Your task to perform on an android device: see sites visited before in the chrome app Image 0: 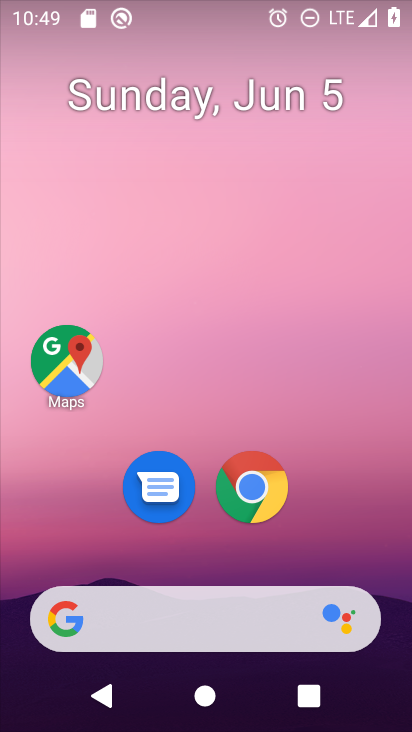
Step 0: drag from (288, 534) to (259, 320)
Your task to perform on an android device: see sites visited before in the chrome app Image 1: 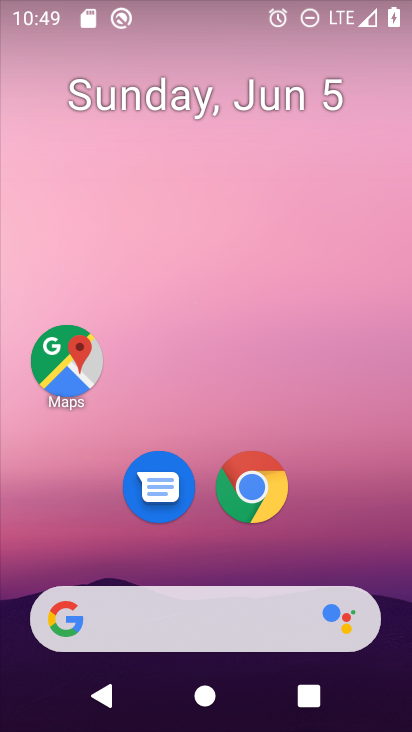
Step 1: click (248, 472)
Your task to perform on an android device: see sites visited before in the chrome app Image 2: 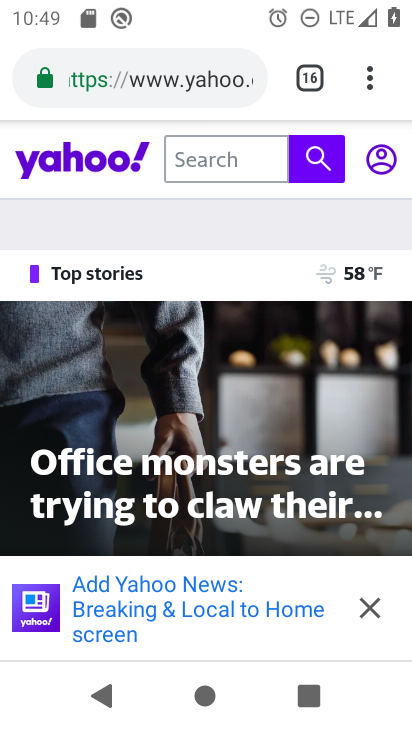
Step 2: click (373, 80)
Your task to perform on an android device: see sites visited before in the chrome app Image 3: 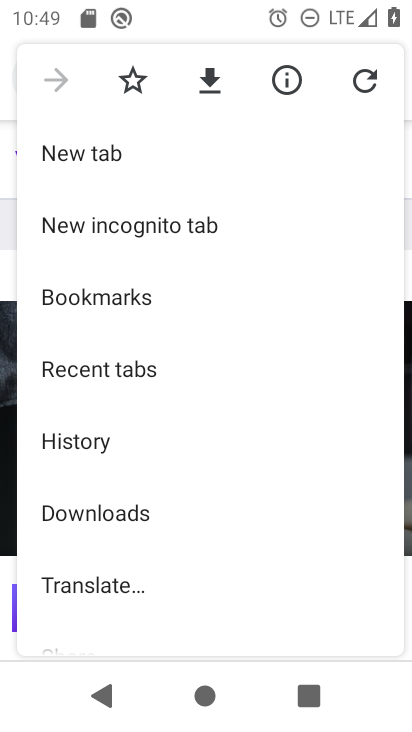
Step 3: click (102, 440)
Your task to perform on an android device: see sites visited before in the chrome app Image 4: 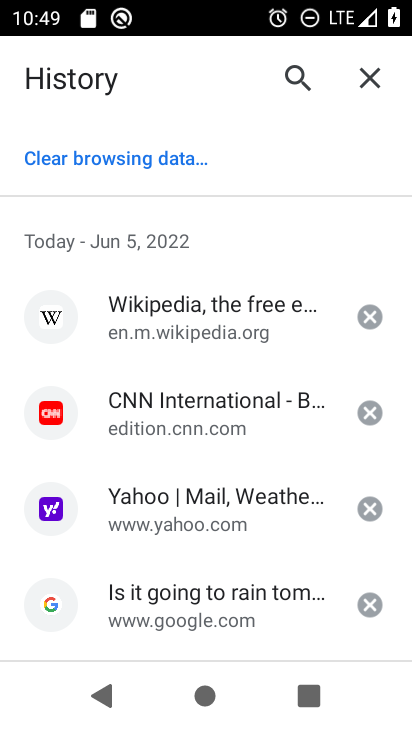
Step 4: task complete